Your task to perform on an android device: toggle data saver in the chrome app Image 0: 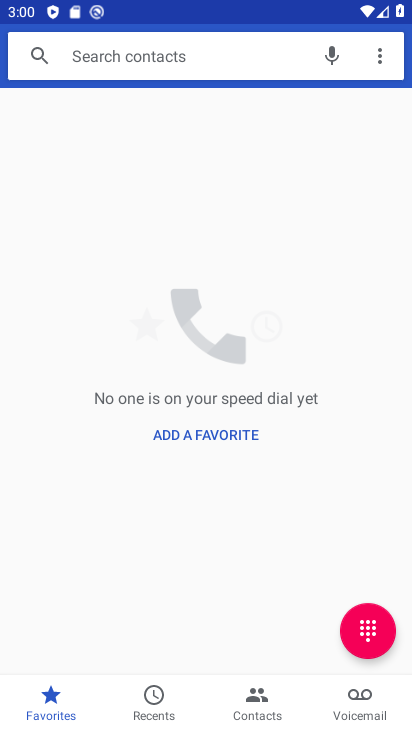
Step 0: press home button
Your task to perform on an android device: toggle data saver in the chrome app Image 1: 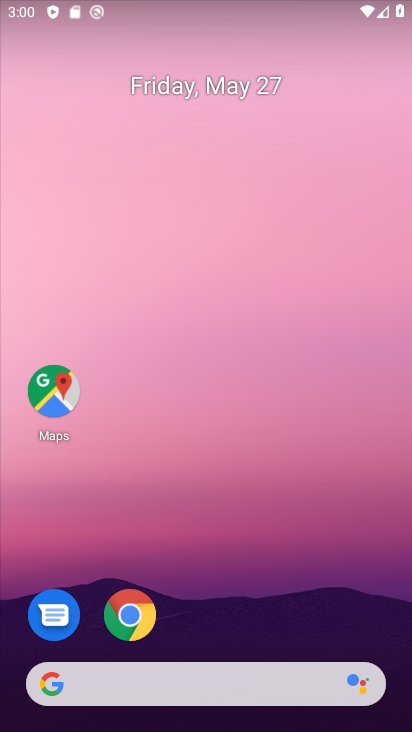
Step 1: click (139, 618)
Your task to perform on an android device: toggle data saver in the chrome app Image 2: 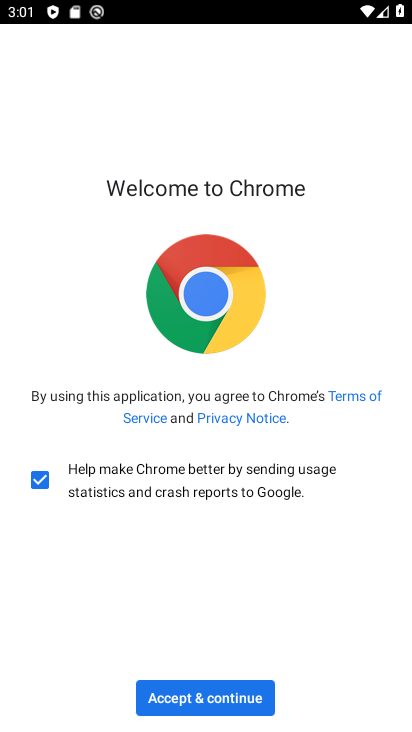
Step 2: click (186, 698)
Your task to perform on an android device: toggle data saver in the chrome app Image 3: 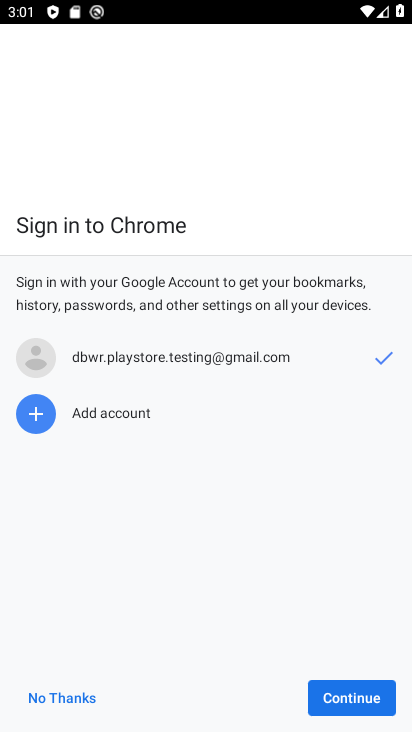
Step 3: click (370, 704)
Your task to perform on an android device: toggle data saver in the chrome app Image 4: 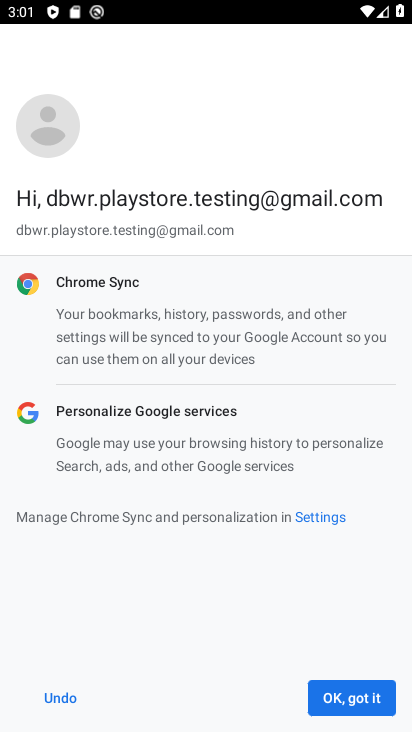
Step 4: click (372, 707)
Your task to perform on an android device: toggle data saver in the chrome app Image 5: 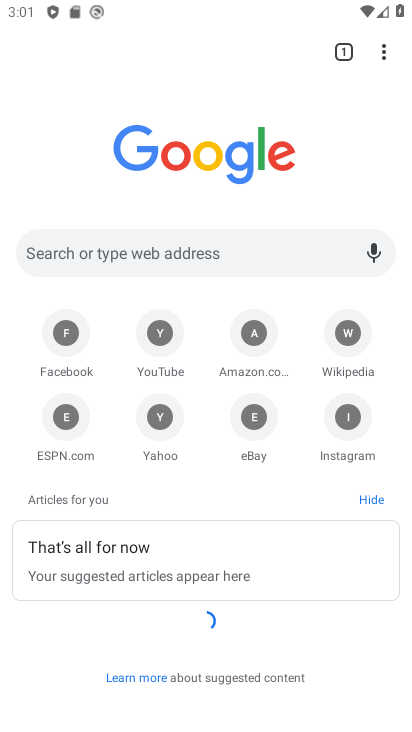
Step 5: click (383, 51)
Your task to perform on an android device: toggle data saver in the chrome app Image 6: 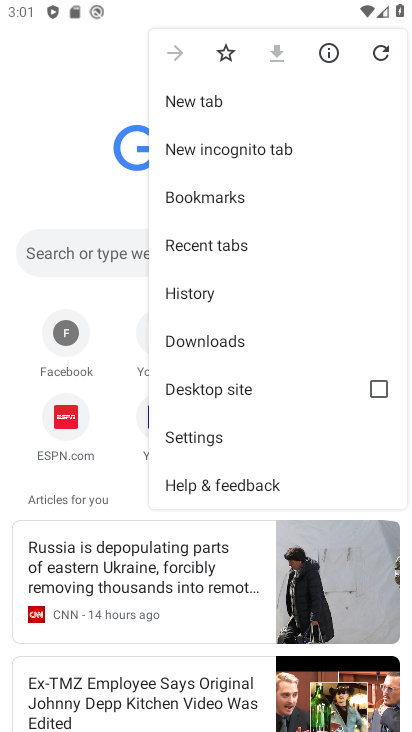
Step 6: click (202, 436)
Your task to perform on an android device: toggle data saver in the chrome app Image 7: 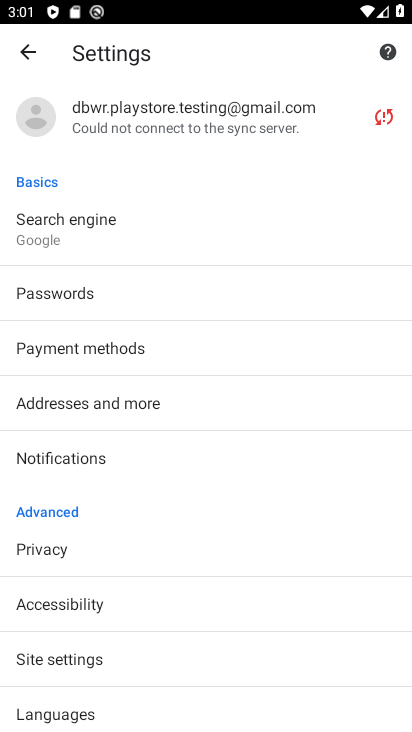
Step 7: drag from (205, 688) to (216, 291)
Your task to perform on an android device: toggle data saver in the chrome app Image 8: 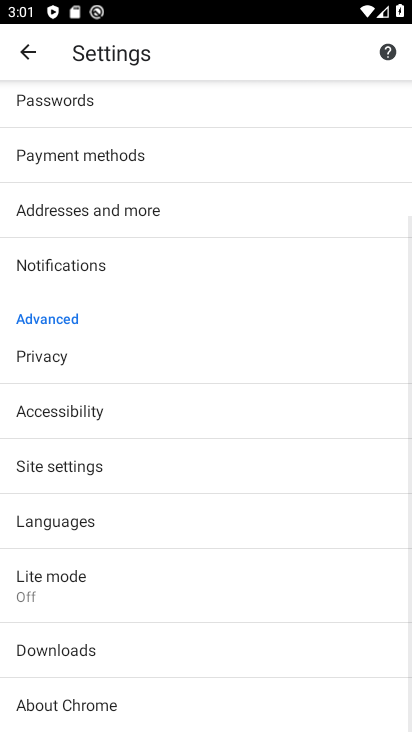
Step 8: click (67, 587)
Your task to perform on an android device: toggle data saver in the chrome app Image 9: 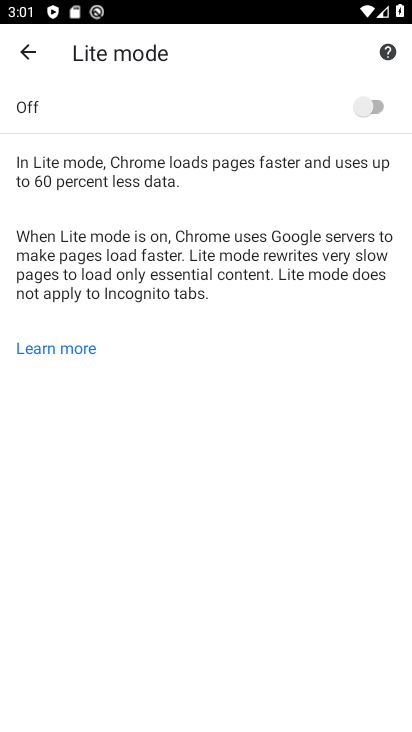
Step 9: click (372, 116)
Your task to perform on an android device: toggle data saver in the chrome app Image 10: 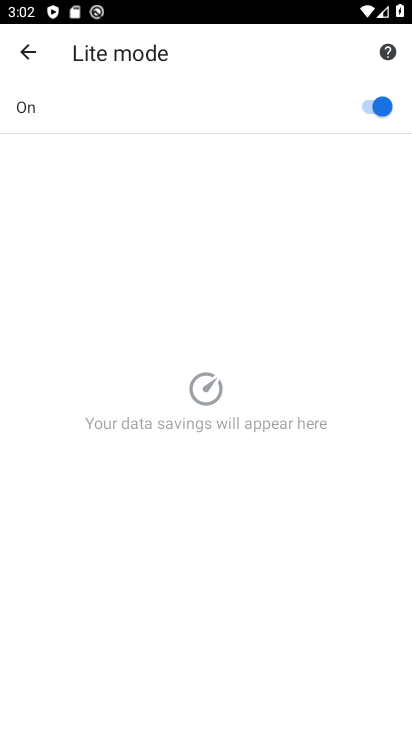
Step 10: task complete